Your task to perform on an android device: move an email to a new category in the gmail app Image 0: 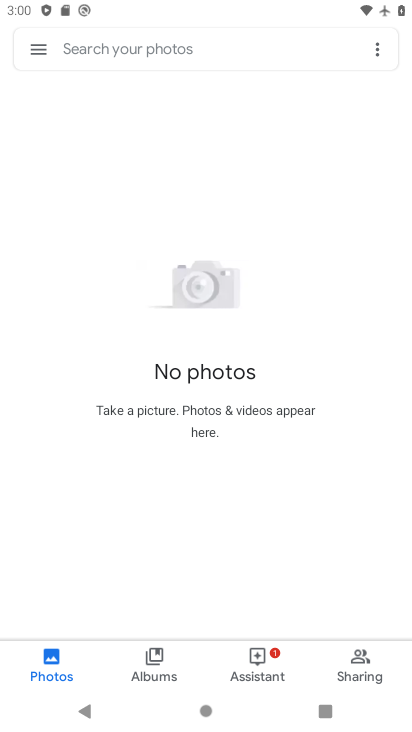
Step 0: press home button
Your task to perform on an android device: move an email to a new category in the gmail app Image 1: 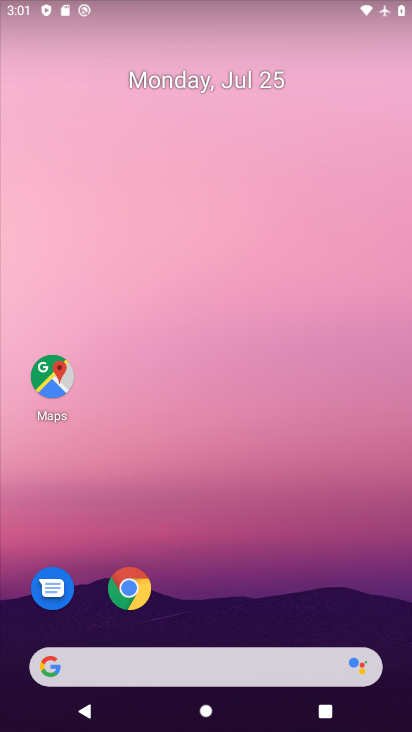
Step 1: drag from (239, 725) to (238, 59)
Your task to perform on an android device: move an email to a new category in the gmail app Image 2: 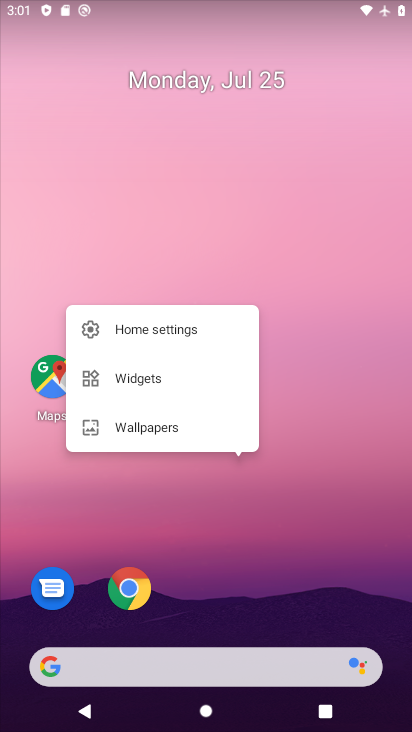
Step 2: click (321, 380)
Your task to perform on an android device: move an email to a new category in the gmail app Image 3: 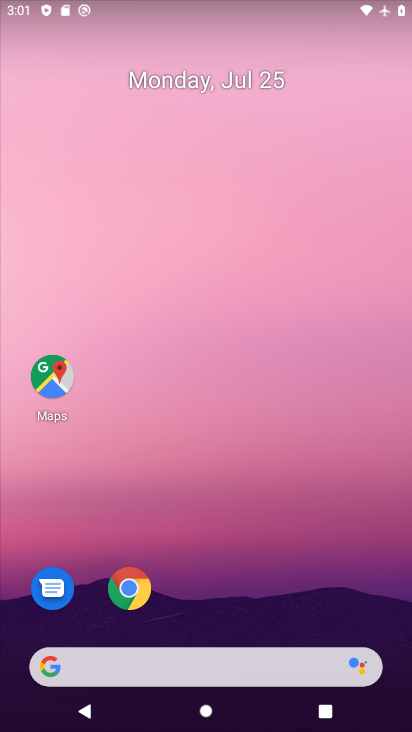
Step 3: drag from (236, 709) to (238, 188)
Your task to perform on an android device: move an email to a new category in the gmail app Image 4: 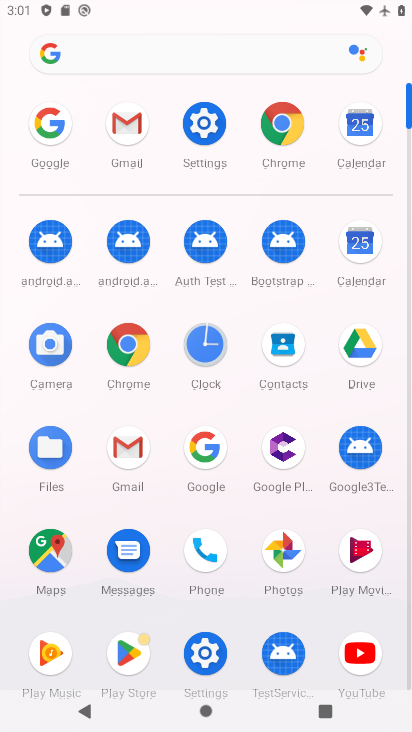
Step 4: click (131, 447)
Your task to perform on an android device: move an email to a new category in the gmail app Image 5: 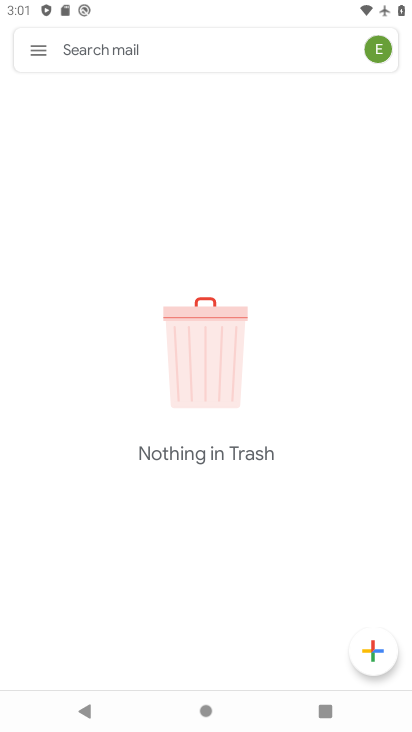
Step 5: click (41, 50)
Your task to perform on an android device: move an email to a new category in the gmail app Image 6: 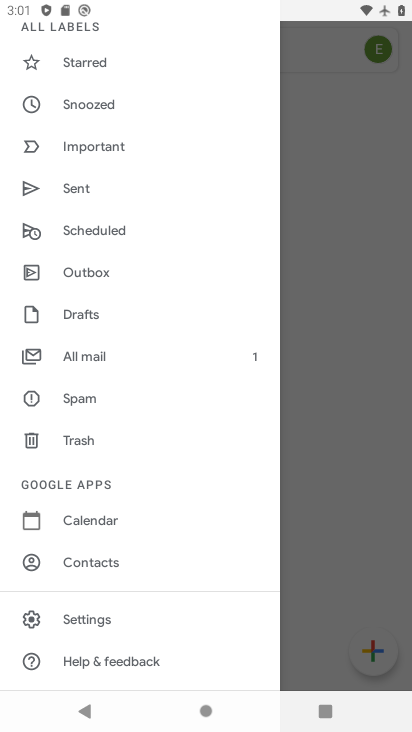
Step 6: drag from (197, 89) to (167, 611)
Your task to perform on an android device: move an email to a new category in the gmail app Image 7: 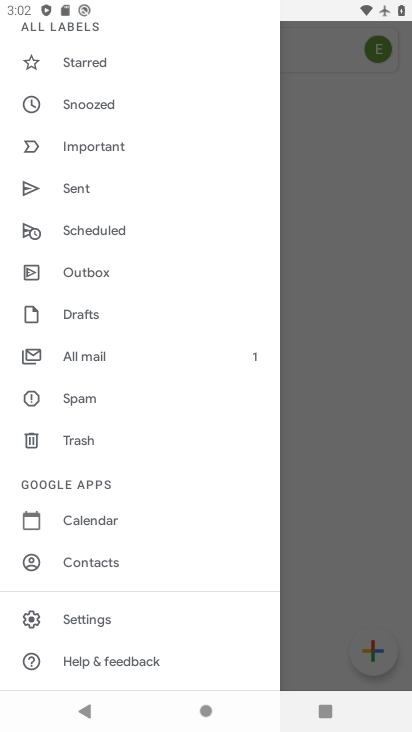
Step 7: drag from (76, 59) to (108, 535)
Your task to perform on an android device: move an email to a new category in the gmail app Image 8: 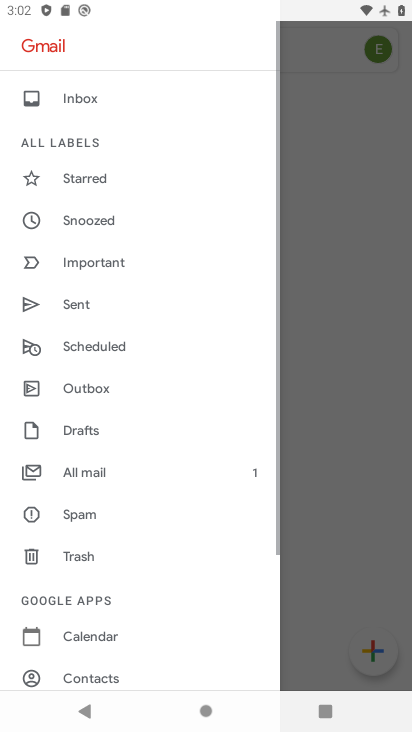
Step 8: click (75, 100)
Your task to perform on an android device: move an email to a new category in the gmail app Image 9: 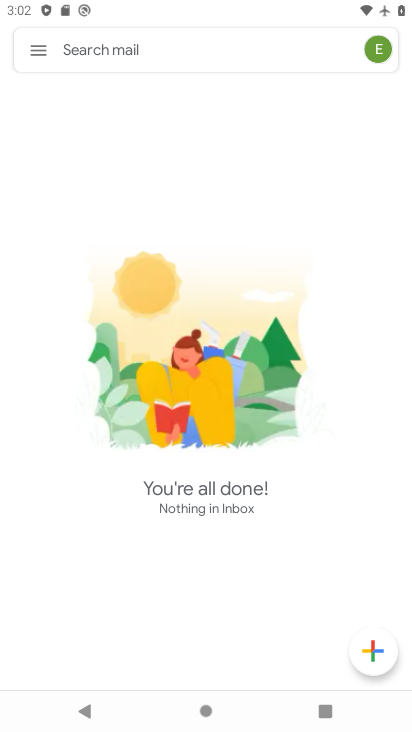
Step 9: task complete